Your task to perform on an android device: install app "Microsoft Authenticator" Image 0: 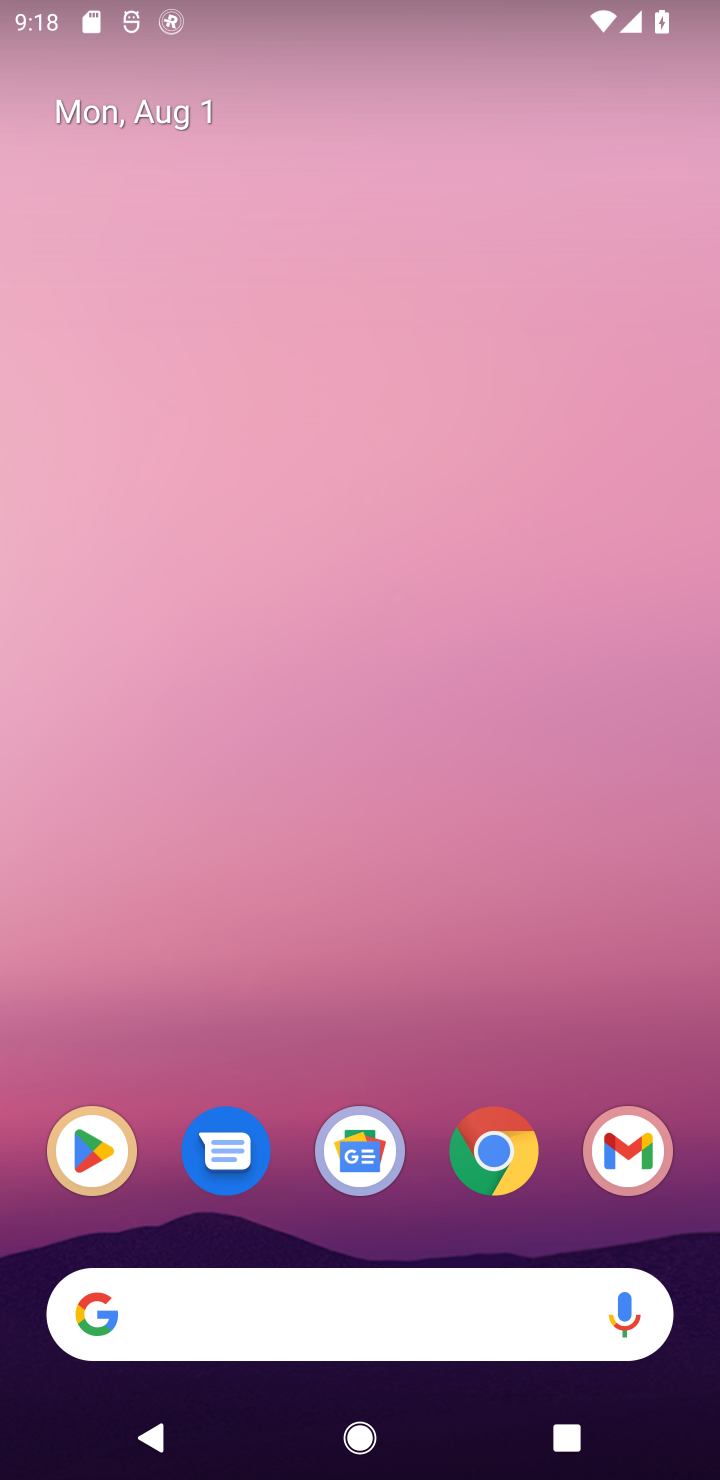
Step 0: click (76, 1174)
Your task to perform on an android device: install app "Microsoft Authenticator" Image 1: 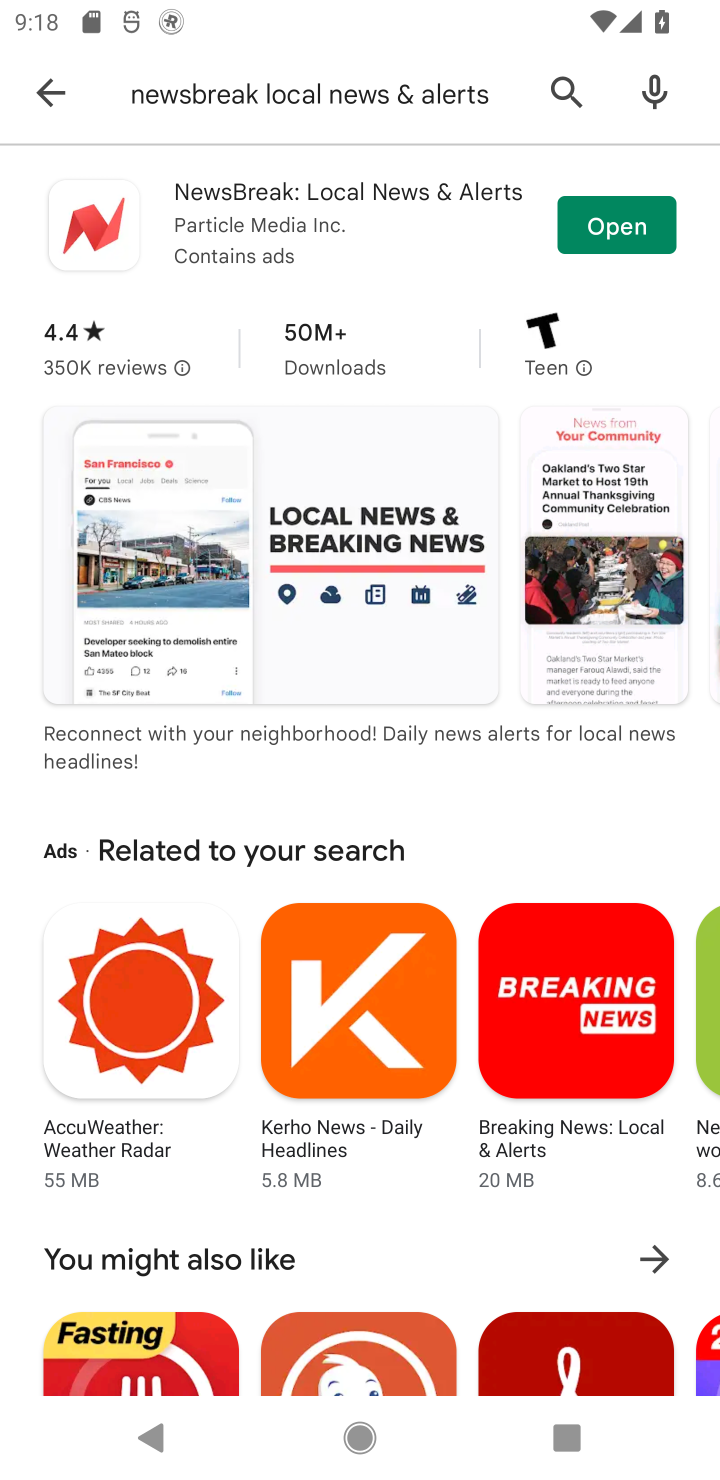
Step 1: click (553, 90)
Your task to perform on an android device: install app "Microsoft Authenticator" Image 2: 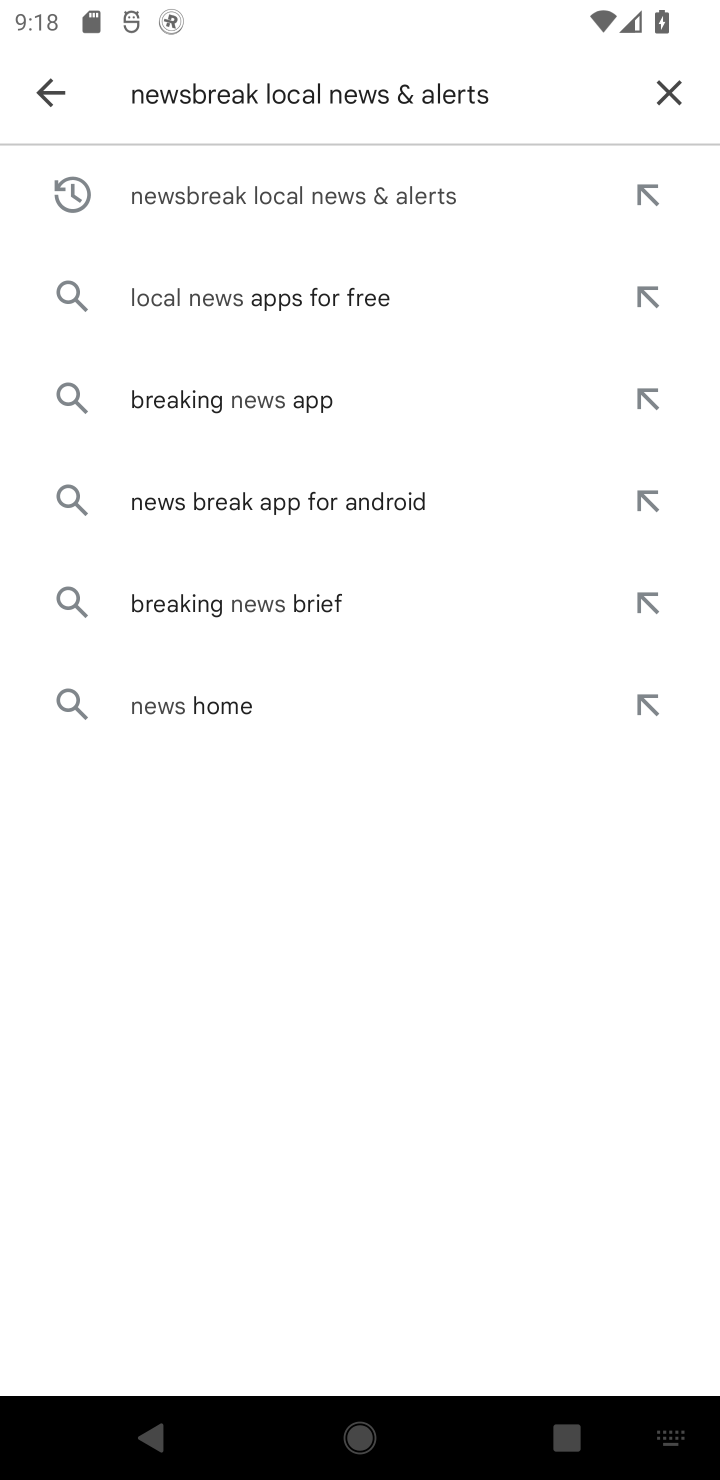
Step 2: type "Microsoft Authenticator"
Your task to perform on an android device: install app "Microsoft Authenticator" Image 3: 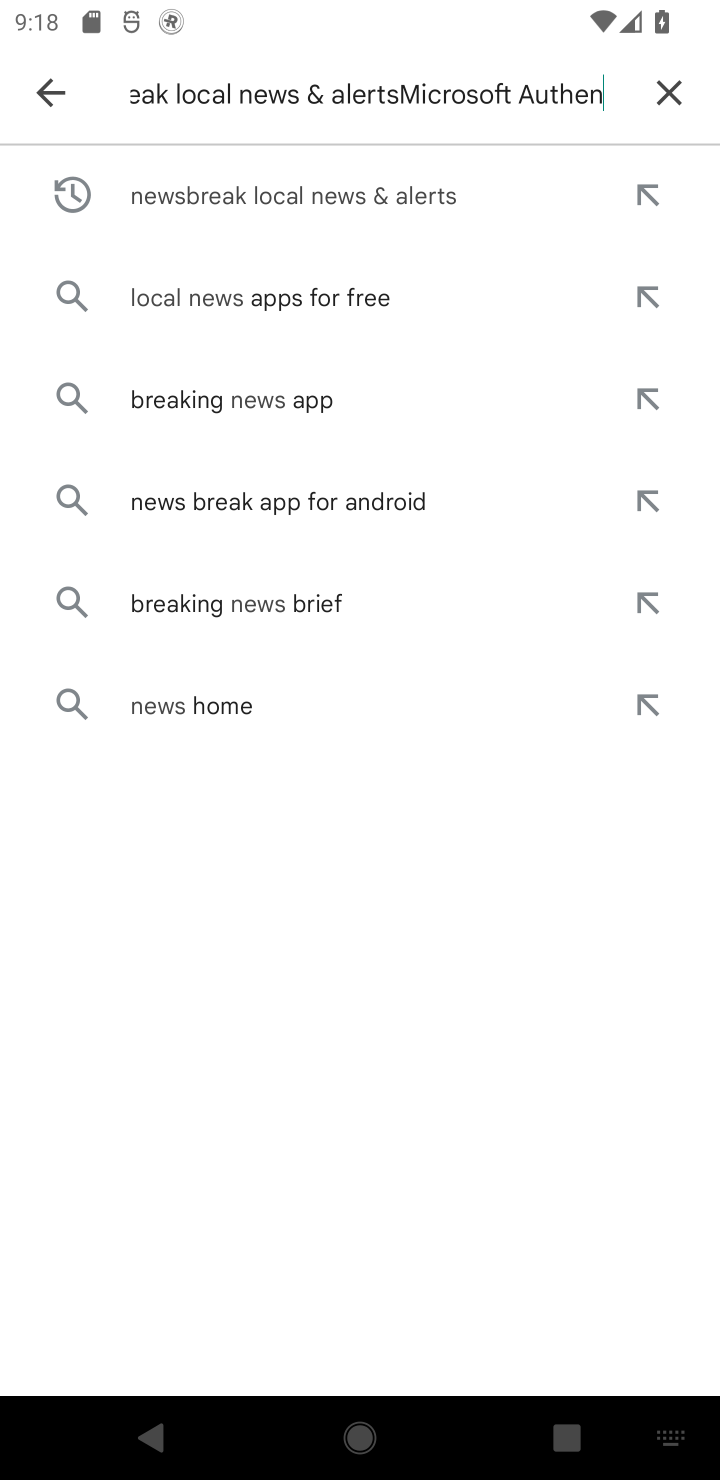
Step 3: type ""
Your task to perform on an android device: install app "Microsoft Authenticator" Image 4: 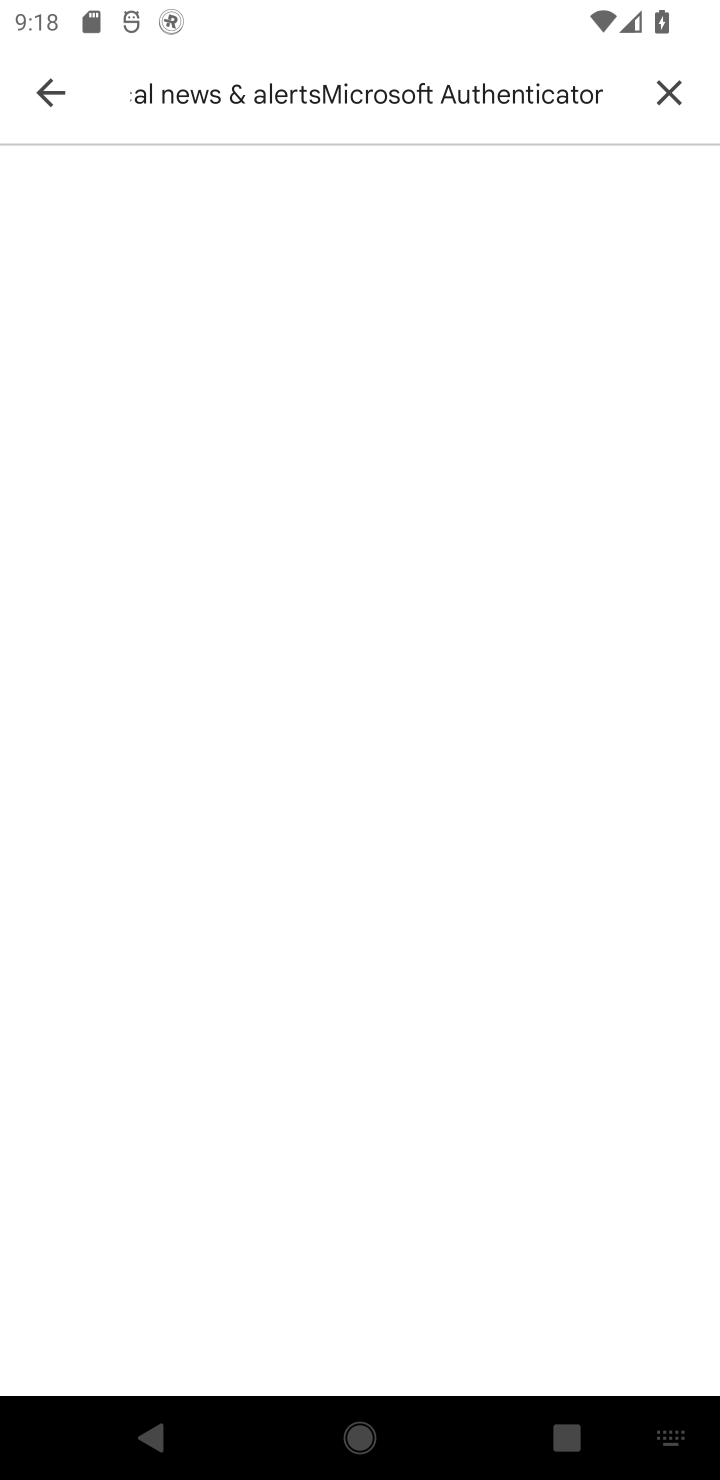
Step 4: click (651, 85)
Your task to perform on an android device: install app "Microsoft Authenticator" Image 5: 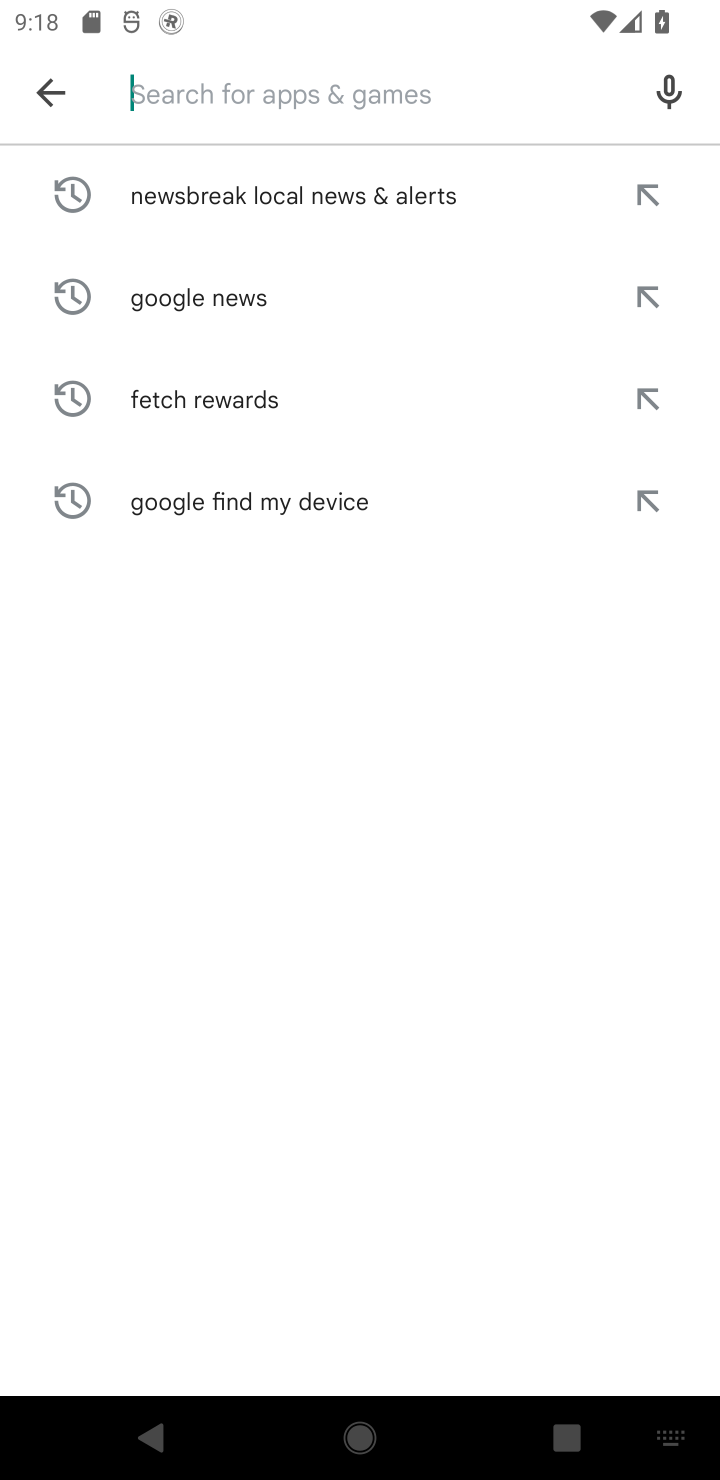
Step 5: type "Microsoft Authenticator"
Your task to perform on an android device: install app "Microsoft Authenticator" Image 6: 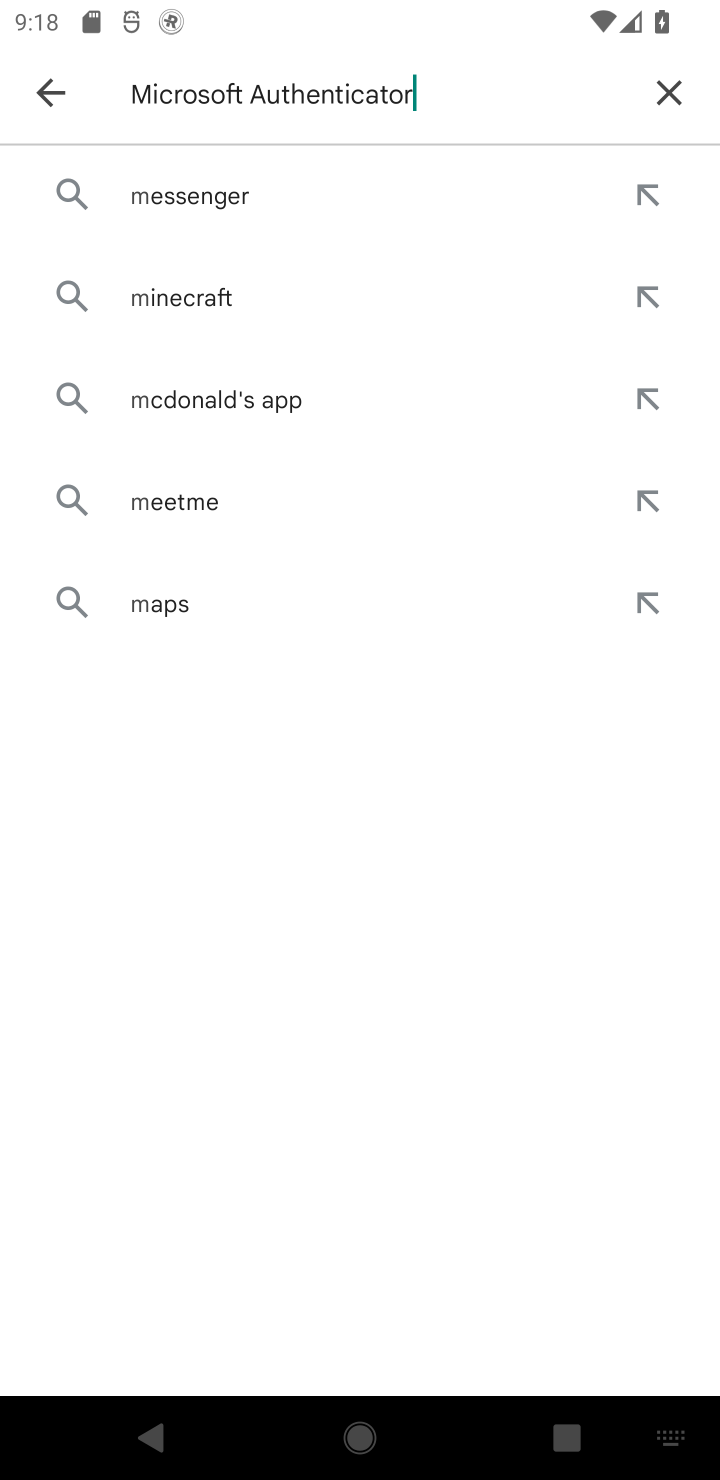
Step 6: type ""
Your task to perform on an android device: install app "Microsoft Authenticator" Image 7: 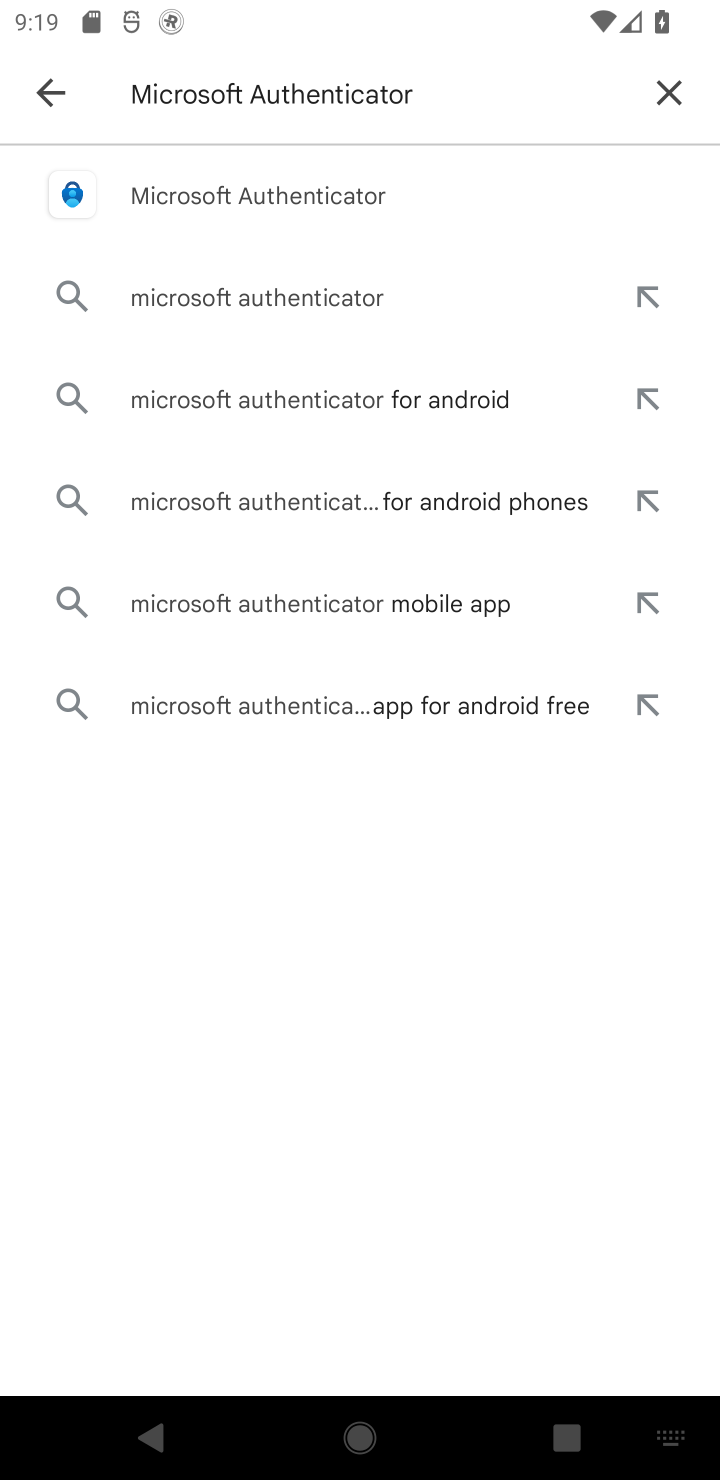
Step 7: click (396, 201)
Your task to perform on an android device: install app "Microsoft Authenticator" Image 8: 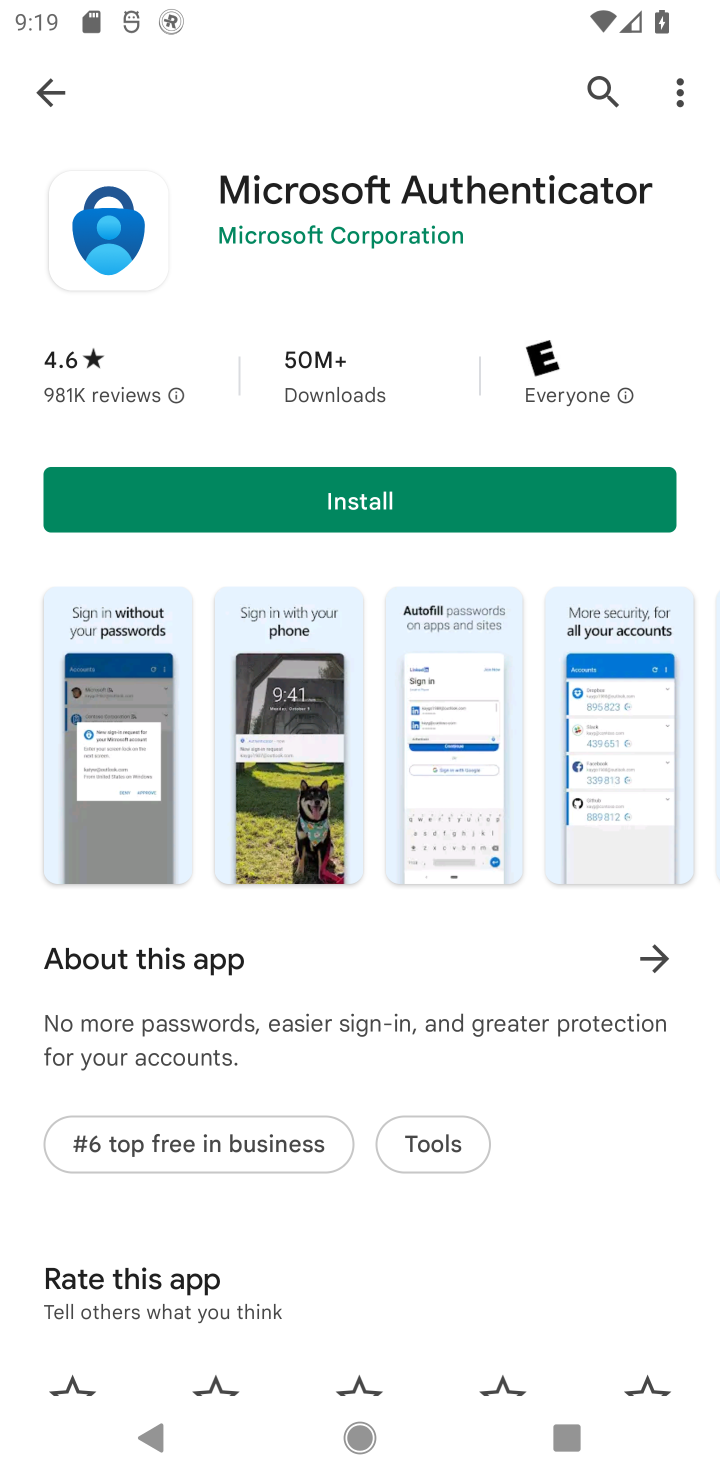
Step 8: click (400, 488)
Your task to perform on an android device: install app "Microsoft Authenticator" Image 9: 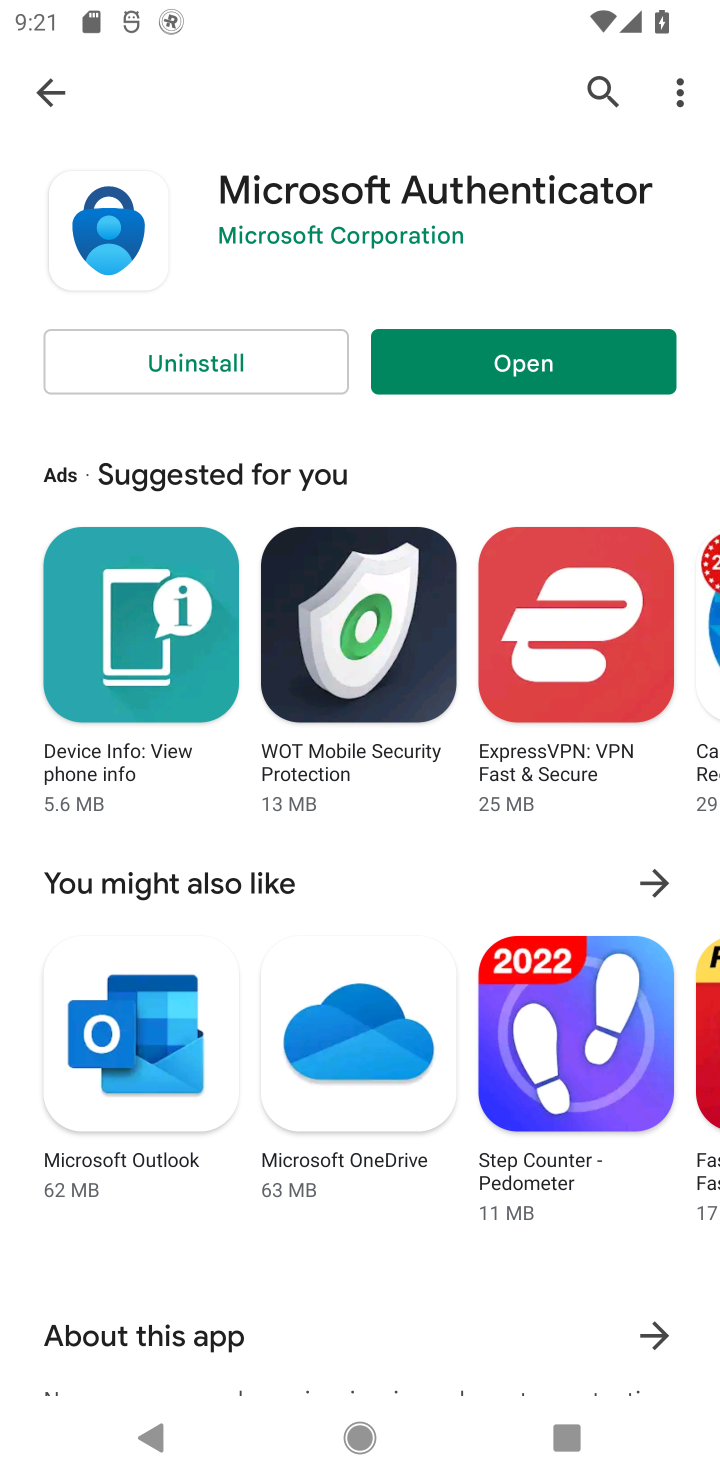
Step 9: task complete